Your task to perform on an android device: turn vacation reply on in the gmail app Image 0: 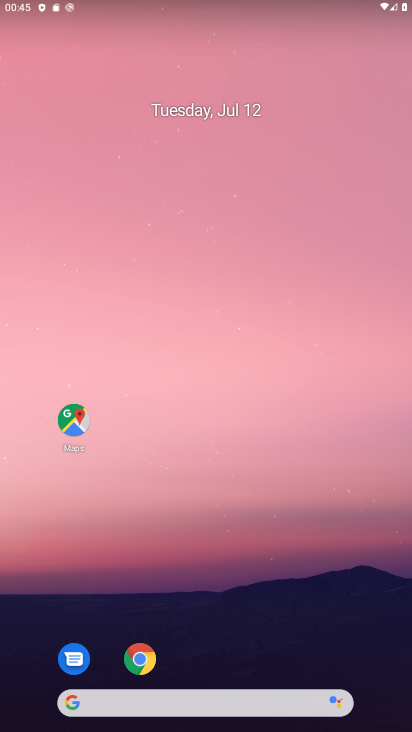
Step 0: drag from (202, 554) to (169, 145)
Your task to perform on an android device: turn vacation reply on in the gmail app Image 1: 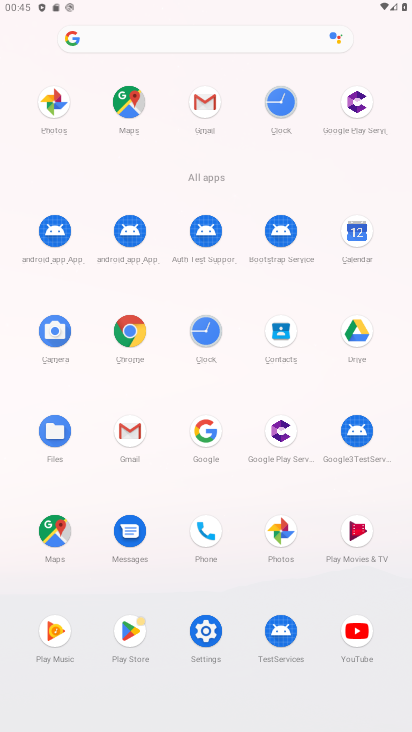
Step 1: click (132, 422)
Your task to perform on an android device: turn vacation reply on in the gmail app Image 2: 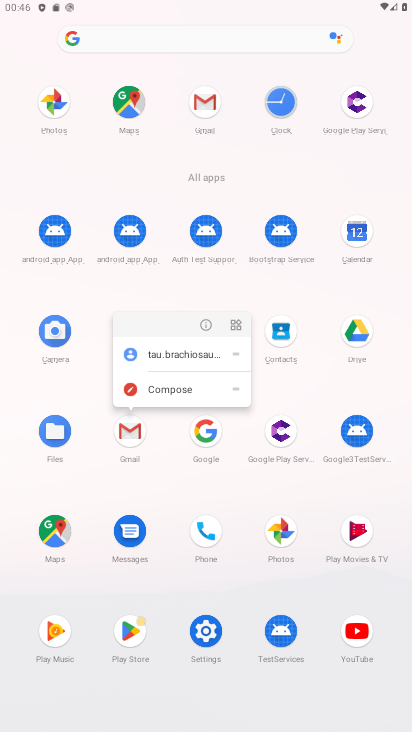
Step 2: click (203, 327)
Your task to perform on an android device: turn vacation reply on in the gmail app Image 3: 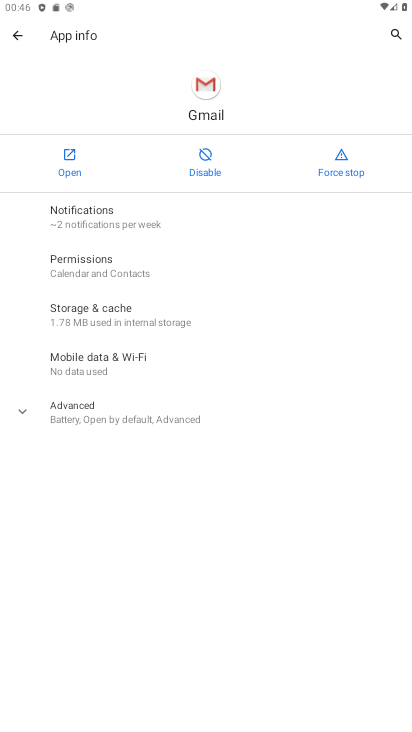
Step 3: click (68, 149)
Your task to perform on an android device: turn vacation reply on in the gmail app Image 4: 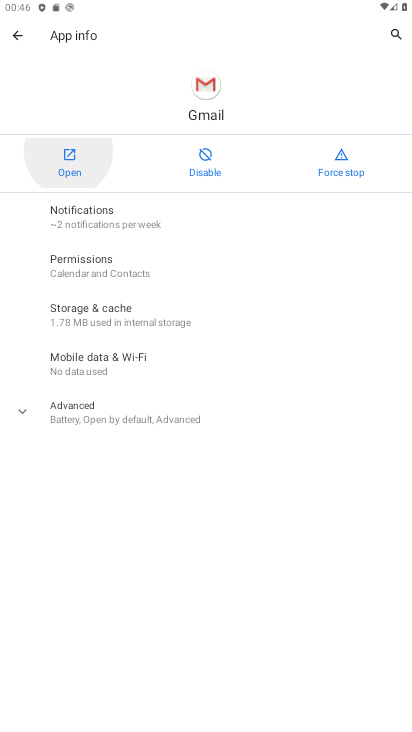
Step 4: click (68, 149)
Your task to perform on an android device: turn vacation reply on in the gmail app Image 5: 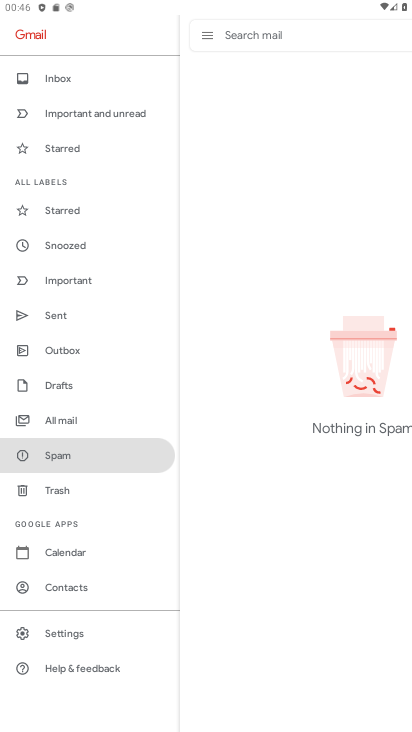
Step 5: click (46, 632)
Your task to perform on an android device: turn vacation reply on in the gmail app Image 6: 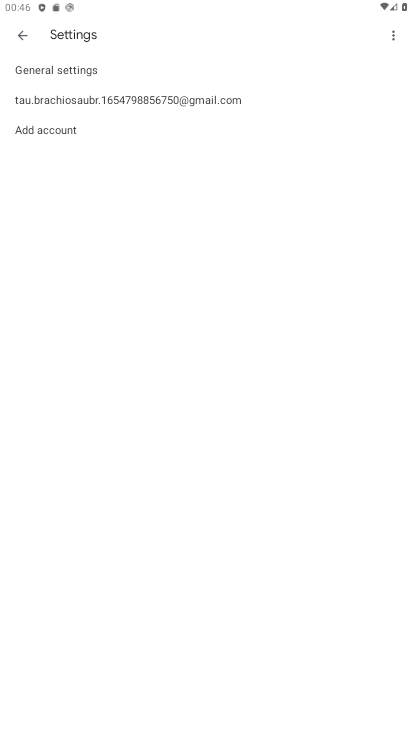
Step 6: click (82, 100)
Your task to perform on an android device: turn vacation reply on in the gmail app Image 7: 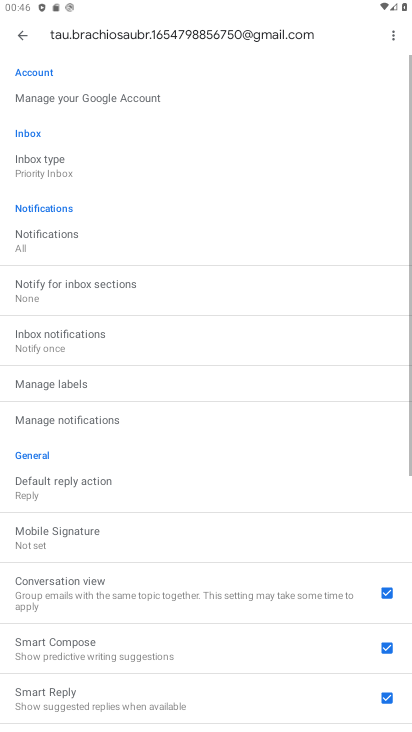
Step 7: drag from (142, 469) to (230, 126)
Your task to perform on an android device: turn vacation reply on in the gmail app Image 8: 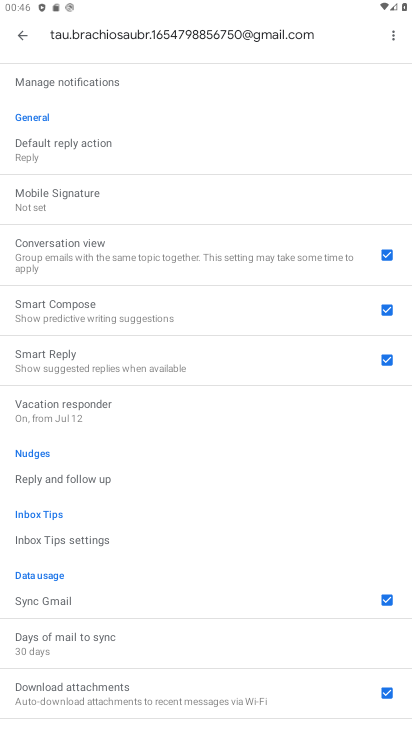
Step 8: click (102, 402)
Your task to perform on an android device: turn vacation reply on in the gmail app Image 9: 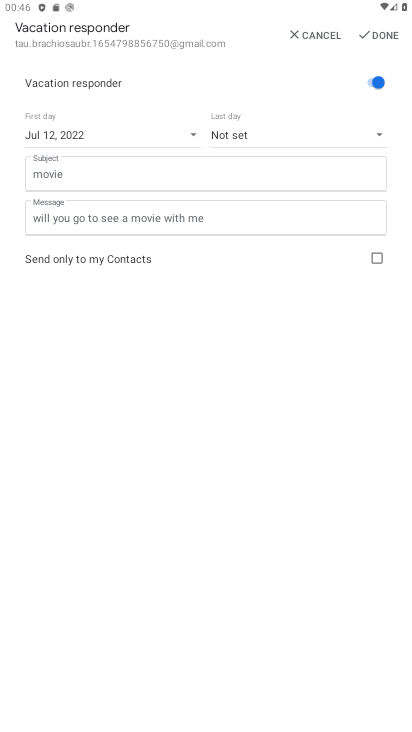
Step 9: drag from (224, 445) to (256, 163)
Your task to perform on an android device: turn vacation reply on in the gmail app Image 10: 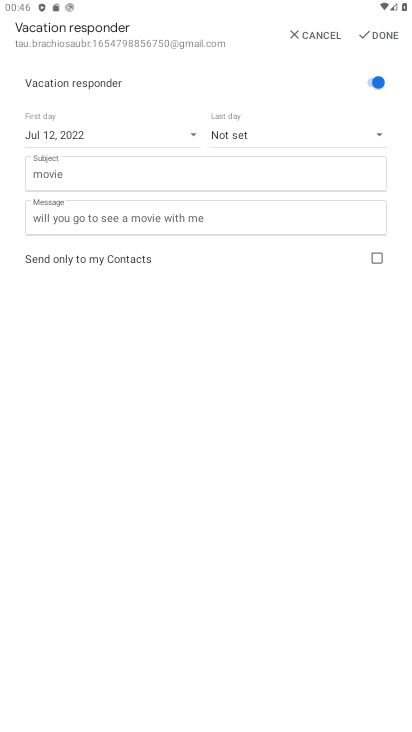
Step 10: click (378, 32)
Your task to perform on an android device: turn vacation reply on in the gmail app Image 11: 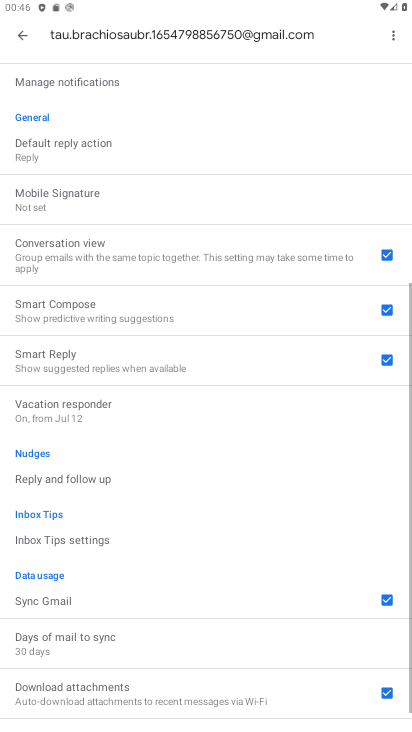
Step 11: drag from (216, 599) to (262, 208)
Your task to perform on an android device: turn vacation reply on in the gmail app Image 12: 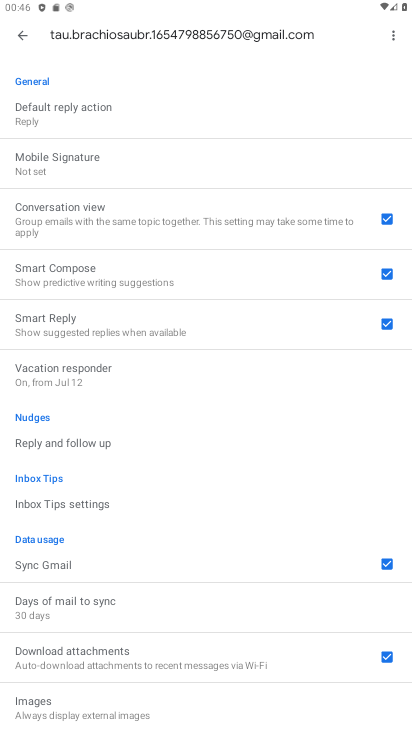
Step 12: click (108, 380)
Your task to perform on an android device: turn vacation reply on in the gmail app Image 13: 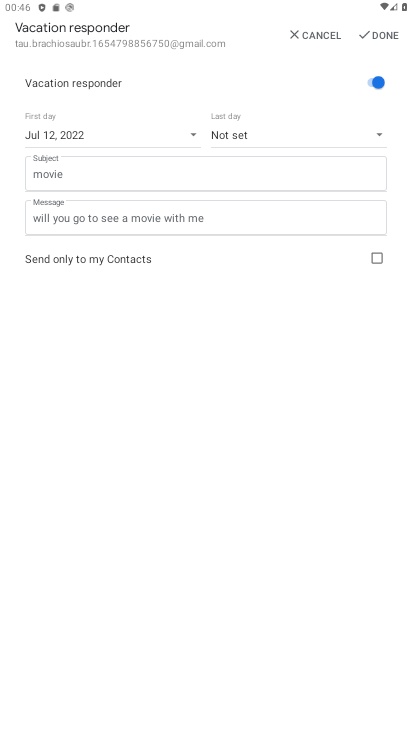
Step 13: click (370, 33)
Your task to perform on an android device: turn vacation reply on in the gmail app Image 14: 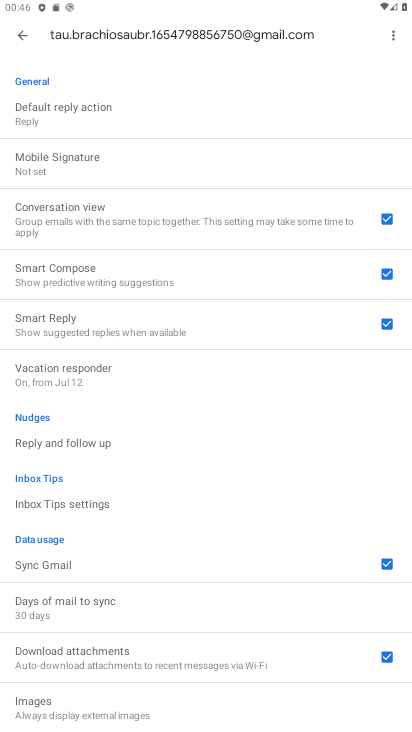
Step 14: task complete